Your task to perform on an android device: Go to wifi settings Image 0: 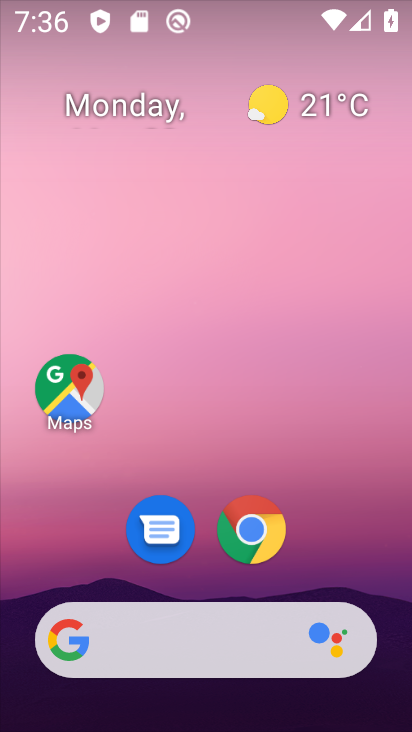
Step 0: drag from (196, 586) to (180, 1)
Your task to perform on an android device: Go to wifi settings Image 1: 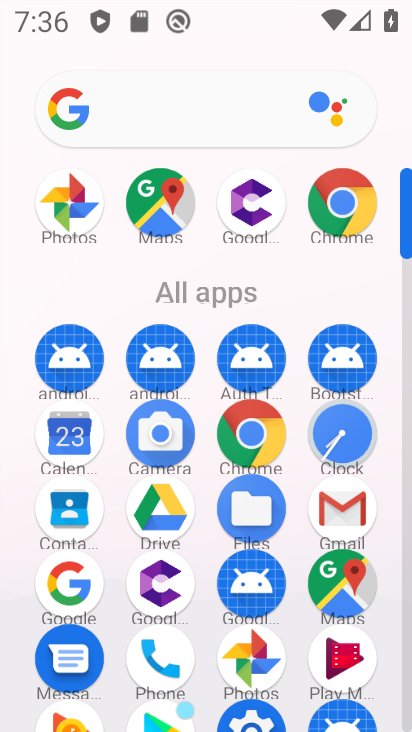
Step 1: drag from (204, 601) to (212, 364)
Your task to perform on an android device: Go to wifi settings Image 2: 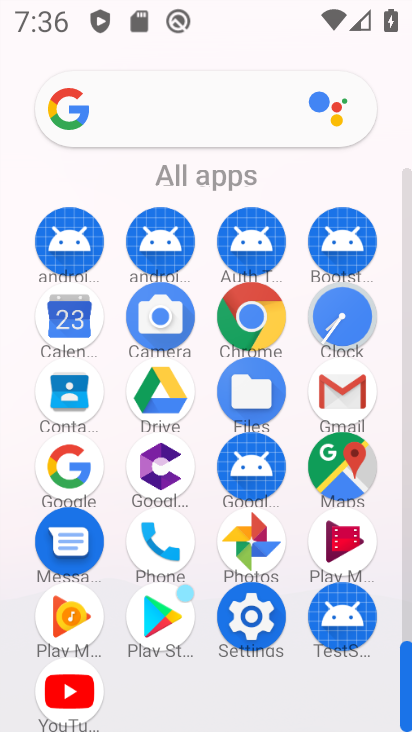
Step 2: click (248, 618)
Your task to perform on an android device: Go to wifi settings Image 3: 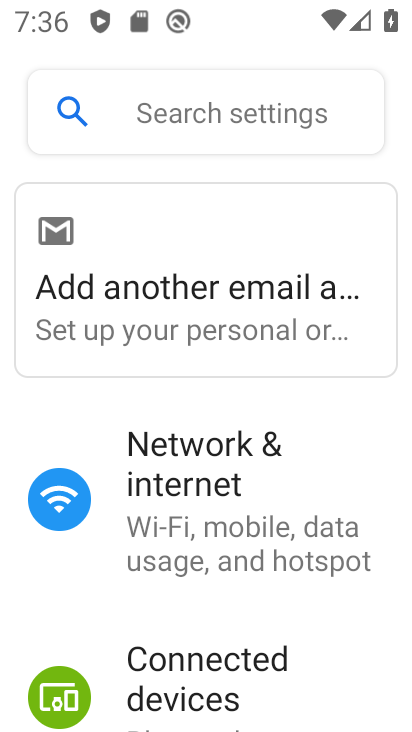
Step 3: click (284, 464)
Your task to perform on an android device: Go to wifi settings Image 4: 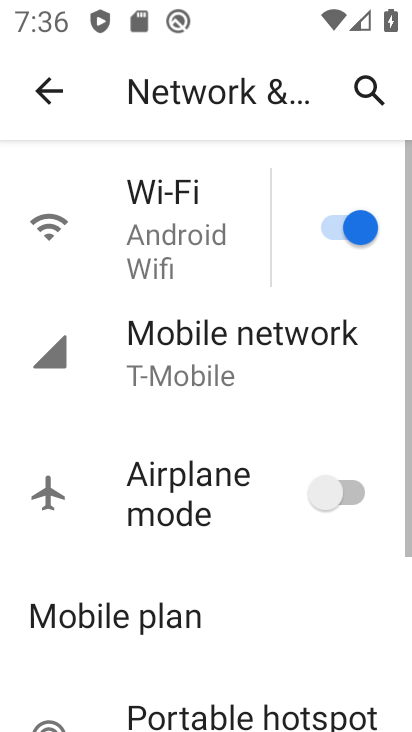
Step 4: click (113, 214)
Your task to perform on an android device: Go to wifi settings Image 5: 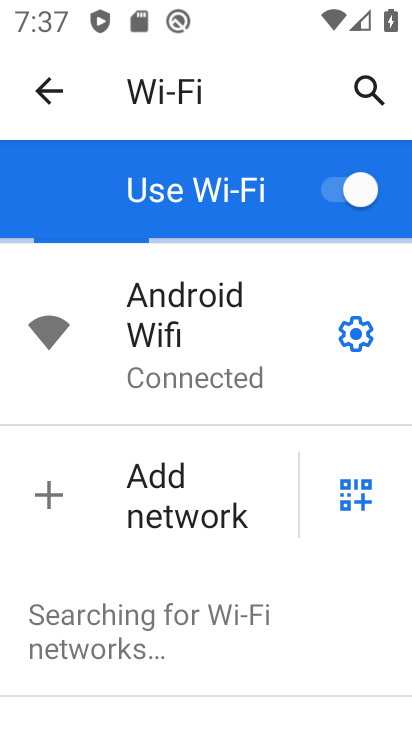
Step 5: task complete